Your task to perform on an android device: Open settings on Google Maps Image 0: 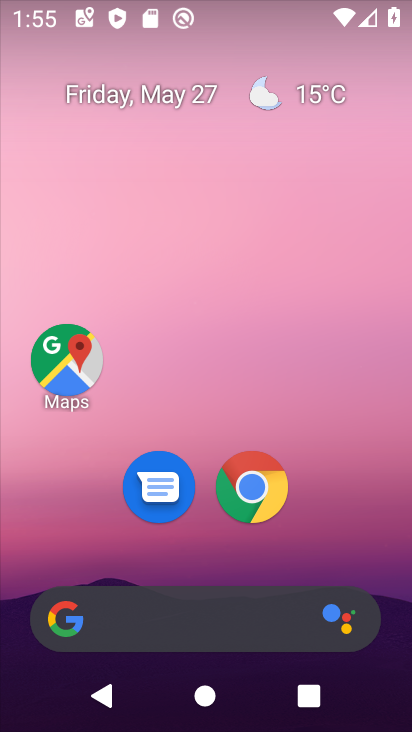
Step 0: click (75, 366)
Your task to perform on an android device: Open settings on Google Maps Image 1: 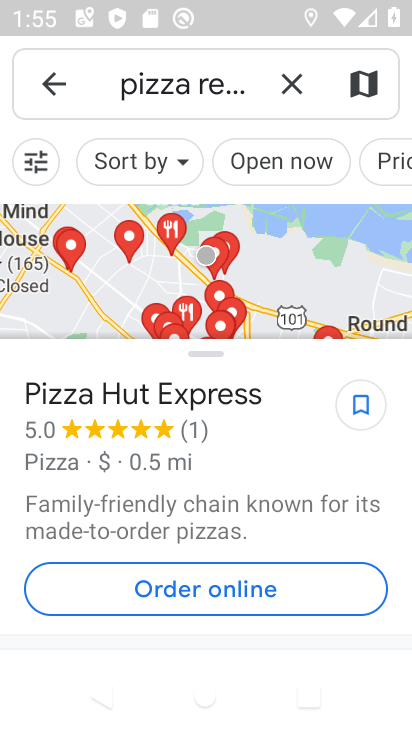
Step 1: click (56, 85)
Your task to perform on an android device: Open settings on Google Maps Image 2: 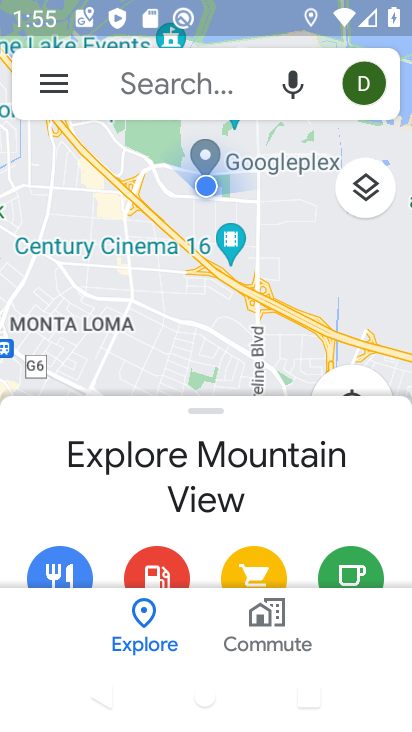
Step 2: click (44, 85)
Your task to perform on an android device: Open settings on Google Maps Image 3: 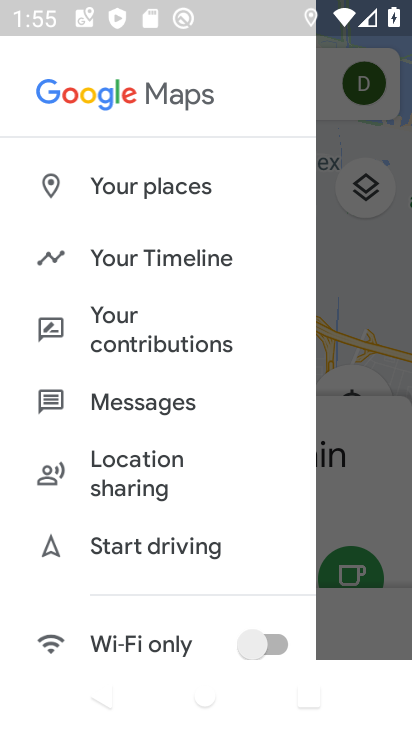
Step 3: drag from (133, 596) to (198, 168)
Your task to perform on an android device: Open settings on Google Maps Image 4: 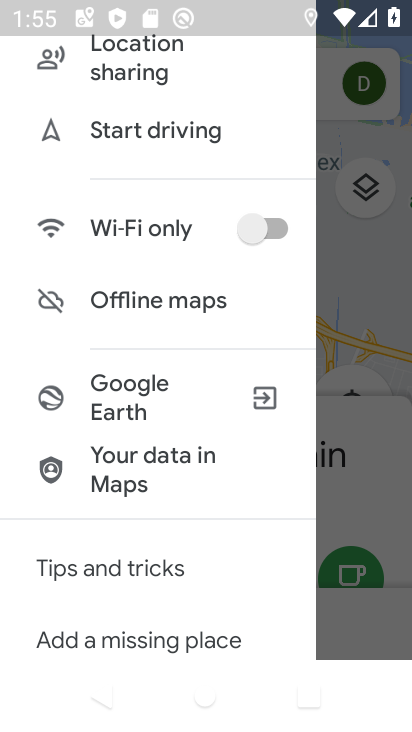
Step 4: drag from (120, 597) to (172, 176)
Your task to perform on an android device: Open settings on Google Maps Image 5: 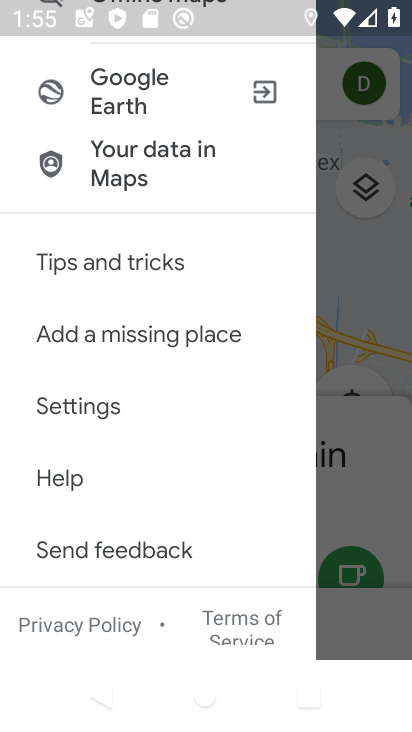
Step 5: click (100, 626)
Your task to perform on an android device: Open settings on Google Maps Image 6: 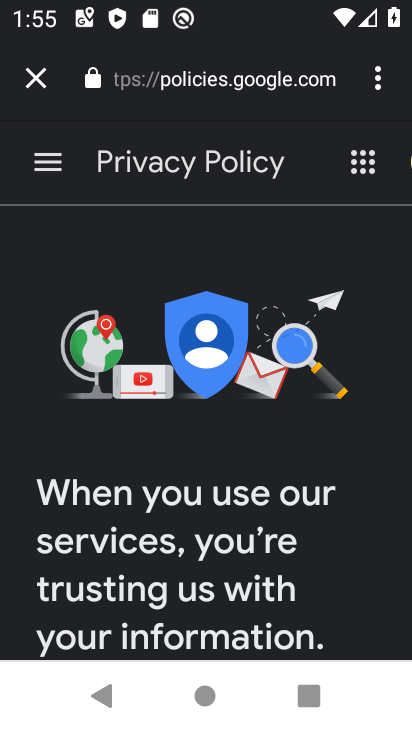
Step 6: click (88, 68)
Your task to perform on an android device: Open settings on Google Maps Image 7: 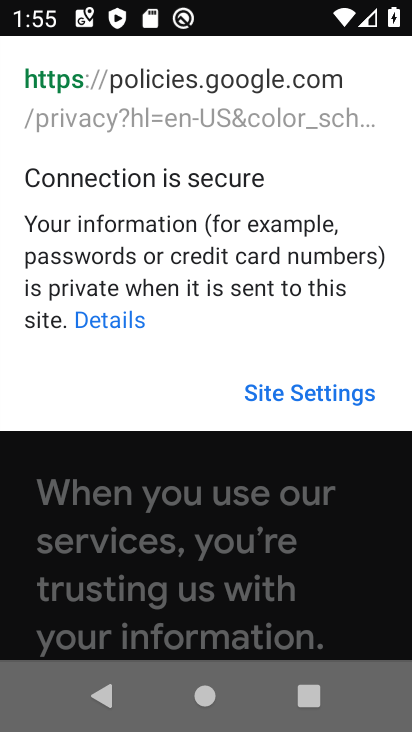
Step 7: click (331, 400)
Your task to perform on an android device: Open settings on Google Maps Image 8: 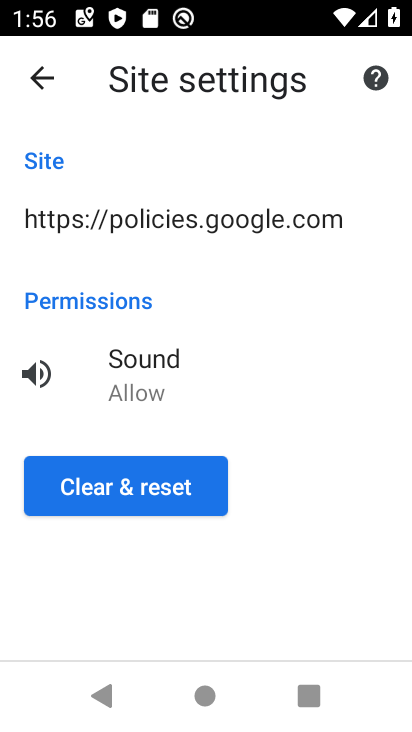
Step 8: click (47, 75)
Your task to perform on an android device: Open settings on Google Maps Image 9: 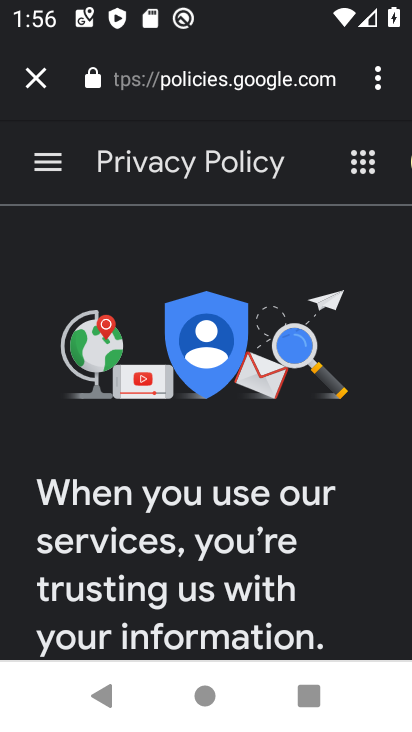
Step 9: click (47, 75)
Your task to perform on an android device: Open settings on Google Maps Image 10: 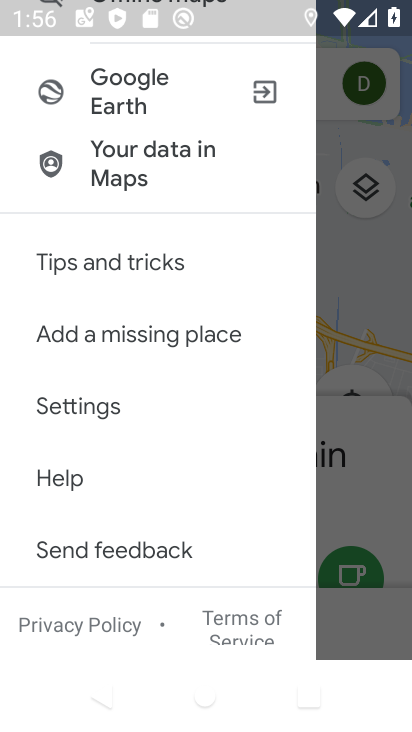
Step 10: click (113, 420)
Your task to perform on an android device: Open settings on Google Maps Image 11: 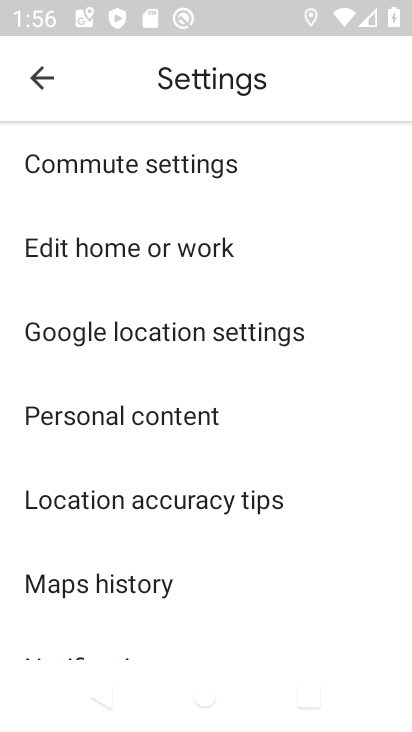
Step 11: task complete